Your task to perform on an android device: turn on improve location accuracy Image 0: 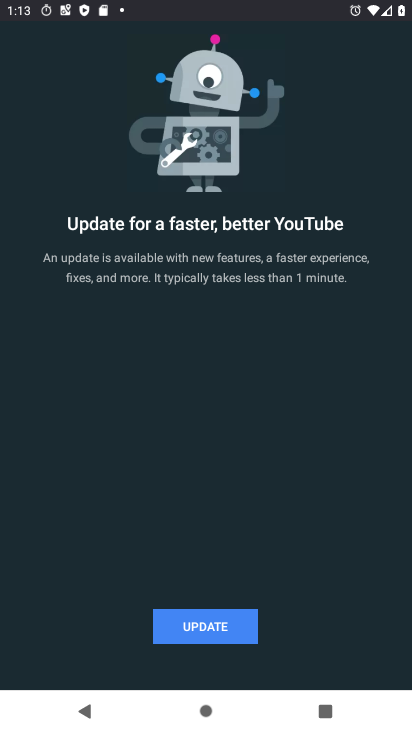
Step 0: press home button
Your task to perform on an android device: turn on improve location accuracy Image 1: 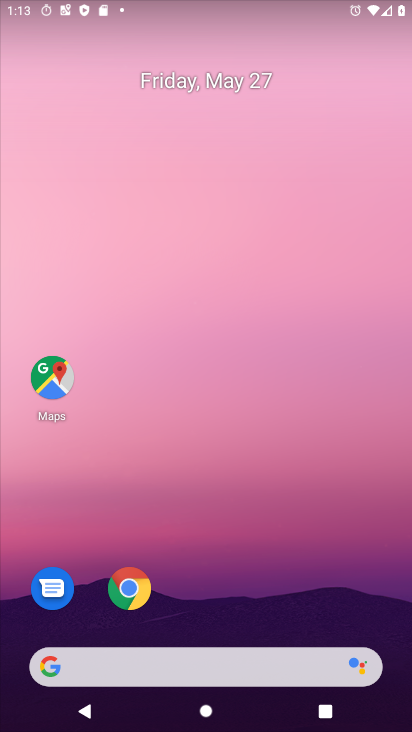
Step 1: drag from (233, 623) to (238, 80)
Your task to perform on an android device: turn on improve location accuracy Image 2: 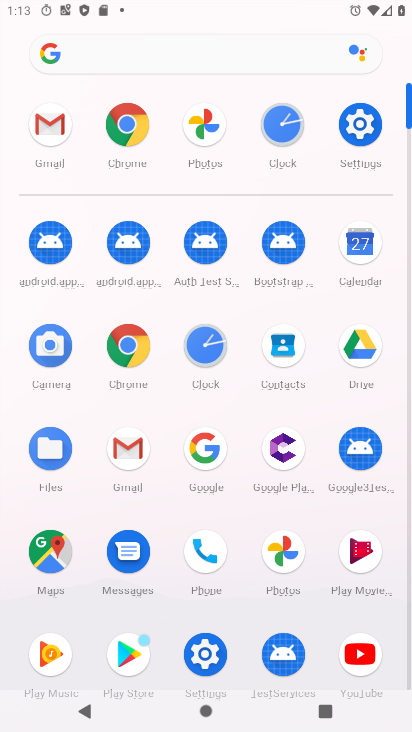
Step 2: click (358, 115)
Your task to perform on an android device: turn on improve location accuracy Image 3: 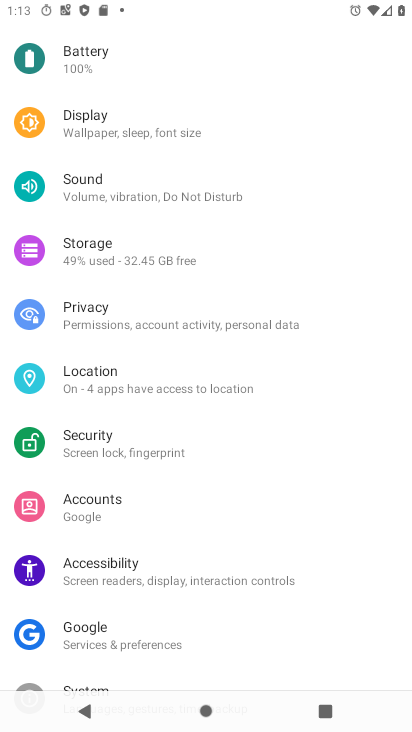
Step 3: click (125, 367)
Your task to perform on an android device: turn on improve location accuracy Image 4: 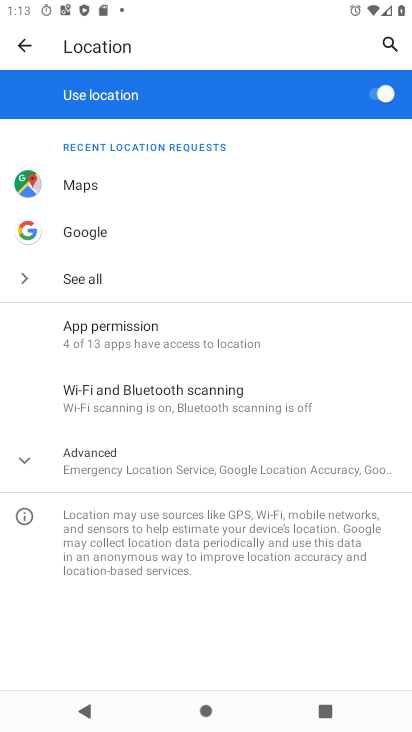
Step 4: click (23, 452)
Your task to perform on an android device: turn on improve location accuracy Image 5: 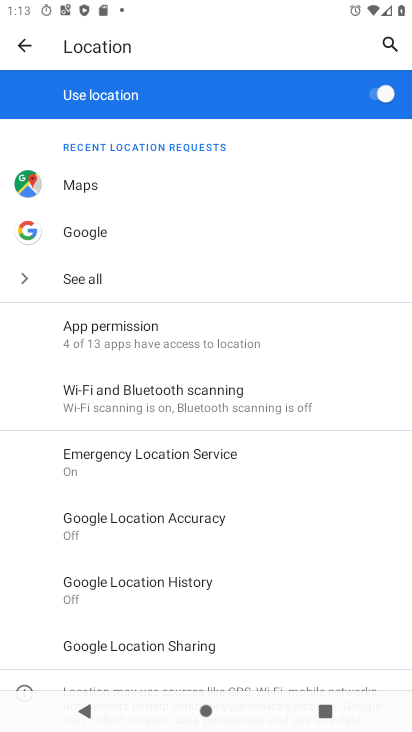
Step 5: click (109, 525)
Your task to perform on an android device: turn on improve location accuracy Image 6: 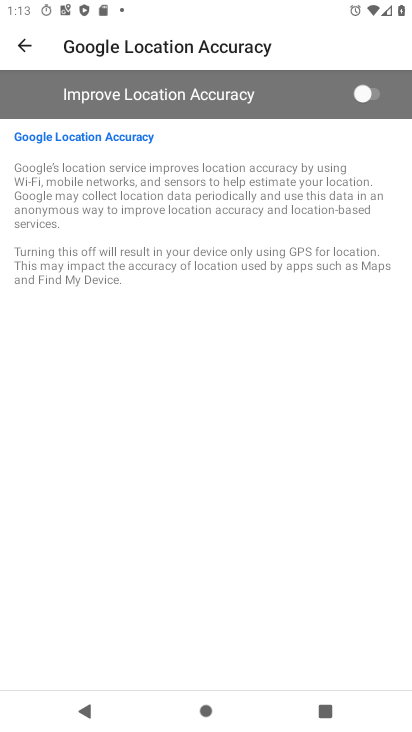
Step 6: click (373, 88)
Your task to perform on an android device: turn on improve location accuracy Image 7: 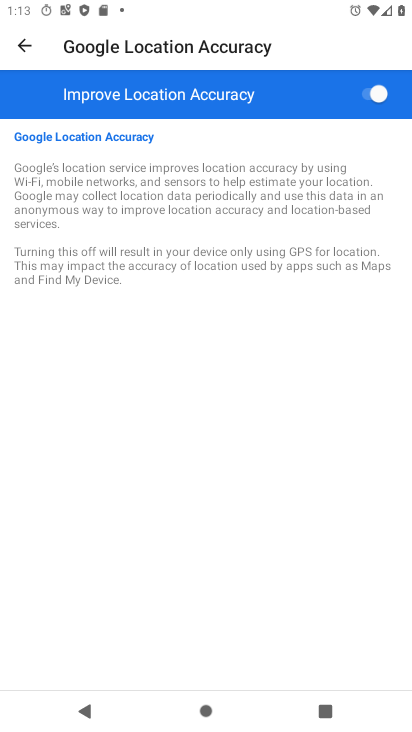
Step 7: task complete